Your task to perform on an android device: Open display settings Image 0: 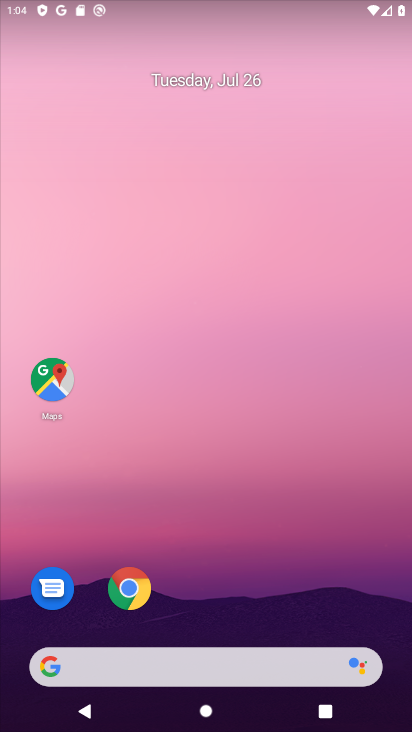
Step 0: drag from (240, 268) to (255, 154)
Your task to perform on an android device: Open display settings Image 1: 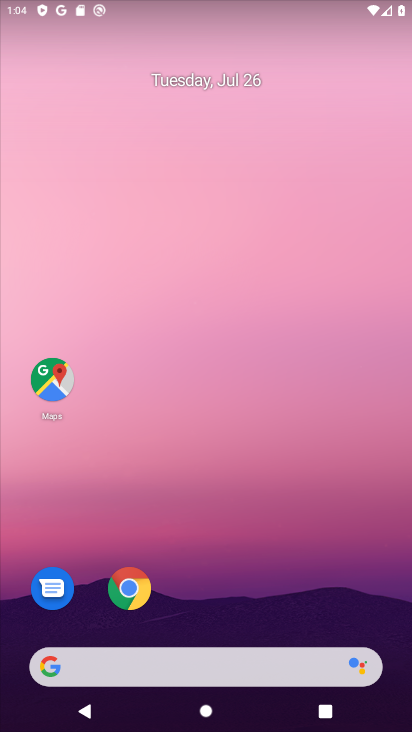
Step 1: drag from (222, 555) to (280, 106)
Your task to perform on an android device: Open display settings Image 2: 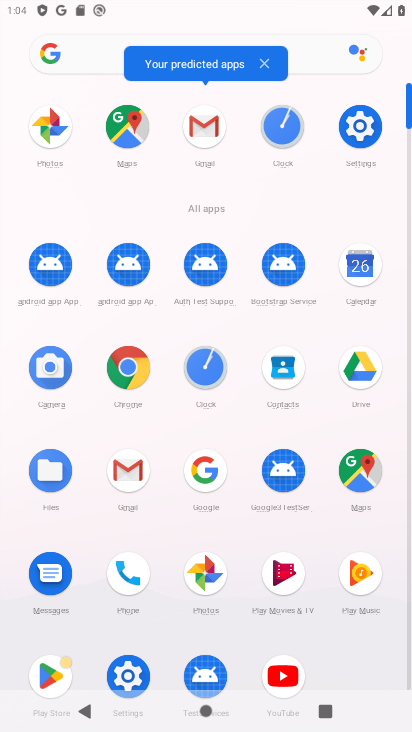
Step 2: click (368, 134)
Your task to perform on an android device: Open display settings Image 3: 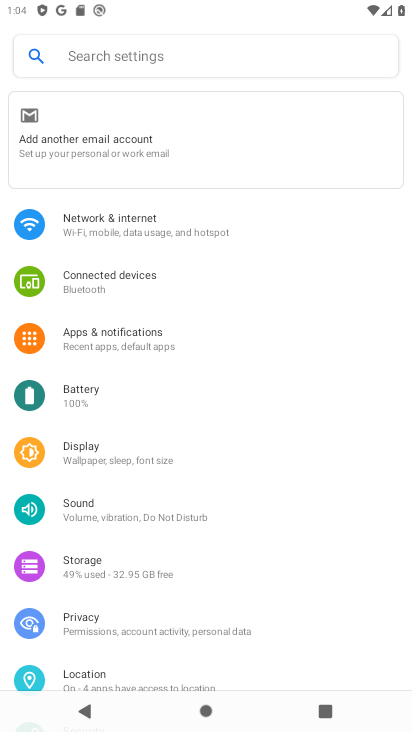
Step 3: click (116, 454)
Your task to perform on an android device: Open display settings Image 4: 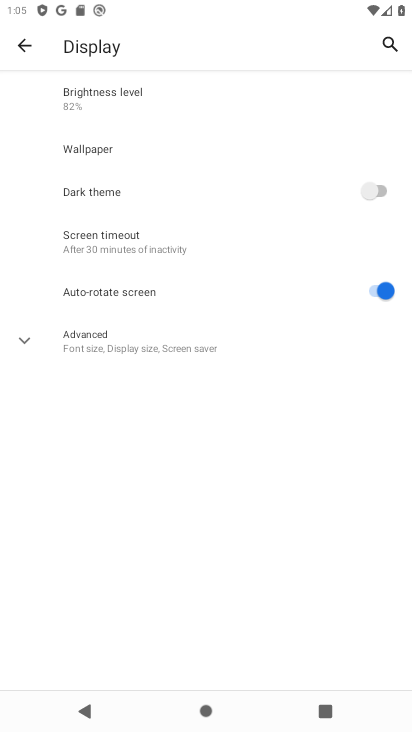
Step 4: task complete